Your task to perform on an android device: turn off priority inbox in the gmail app Image 0: 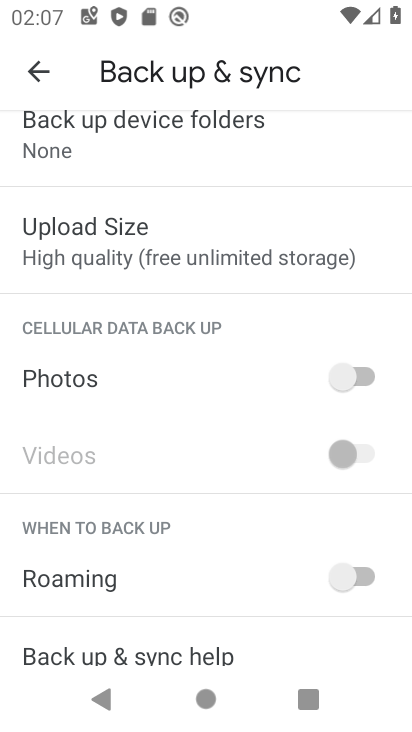
Step 0: press home button
Your task to perform on an android device: turn off priority inbox in the gmail app Image 1: 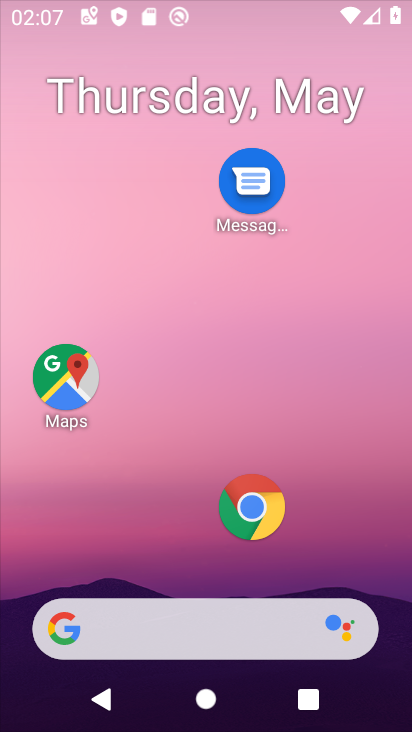
Step 1: drag from (361, 669) to (355, 3)
Your task to perform on an android device: turn off priority inbox in the gmail app Image 2: 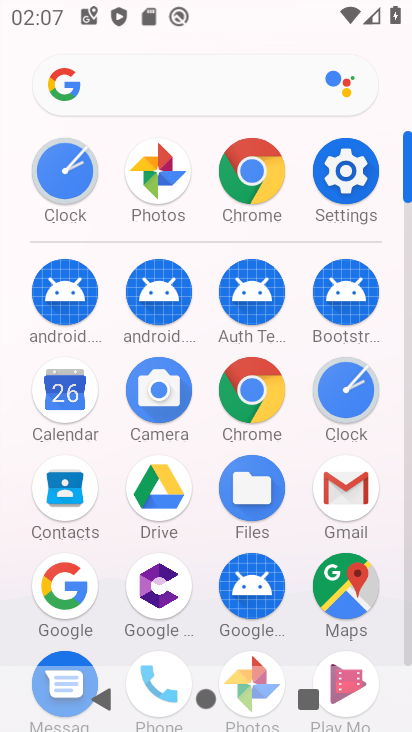
Step 2: click (353, 508)
Your task to perform on an android device: turn off priority inbox in the gmail app Image 3: 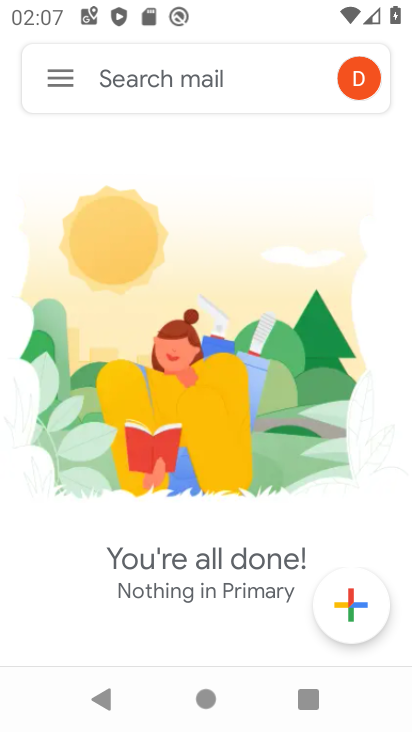
Step 3: click (50, 81)
Your task to perform on an android device: turn off priority inbox in the gmail app Image 4: 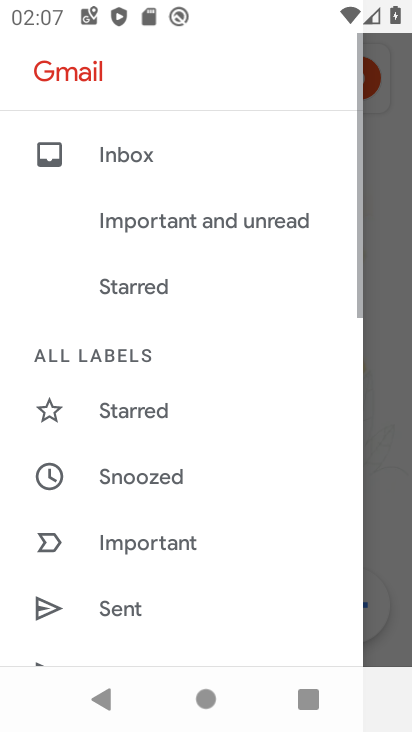
Step 4: drag from (154, 499) to (304, 0)
Your task to perform on an android device: turn off priority inbox in the gmail app Image 5: 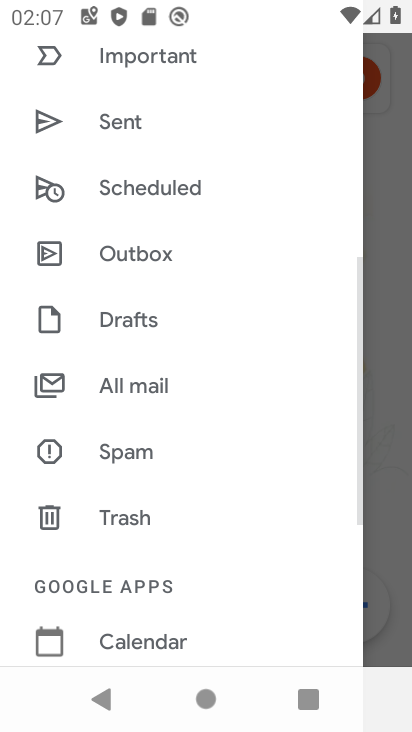
Step 5: drag from (234, 433) to (343, 64)
Your task to perform on an android device: turn off priority inbox in the gmail app Image 6: 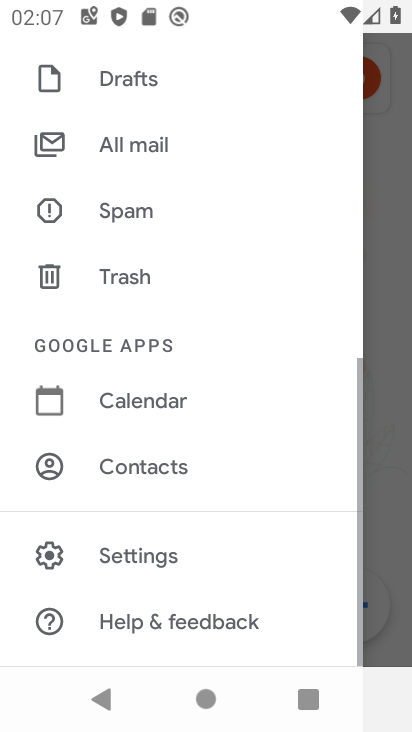
Step 6: click (201, 585)
Your task to perform on an android device: turn off priority inbox in the gmail app Image 7: 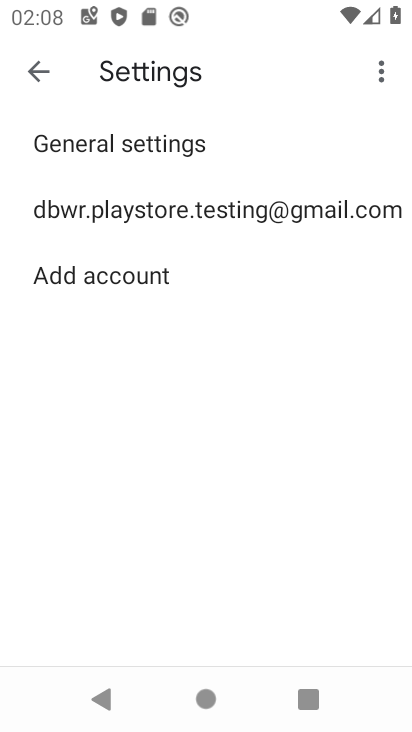
Step 7: click (255, 204)
Your task to perform on an android device: turn off priority inbox in the gmail app Image 8: 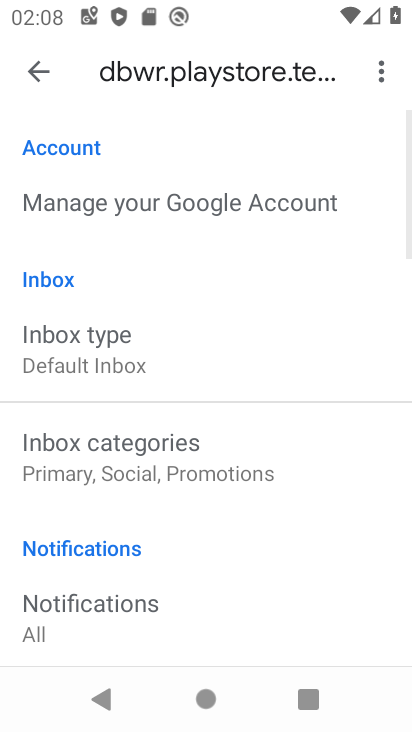
Step 8: click (82, 369)
Your task to perform on an android device: turn off priority inbox in the gmail app Image 9: 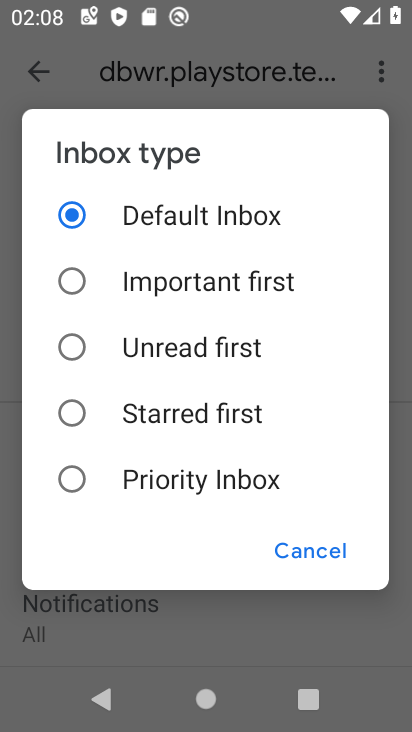
Step 9: task complete